Your task to perform on an android device: turn pop-ups off in chrome Image 0: 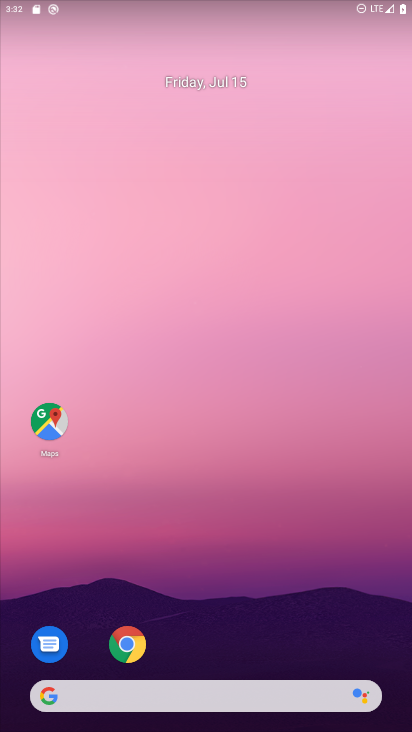
Step 0: task impossible